Your task to perform on an android device: Show me productivity apps on the Play Store Image 0: 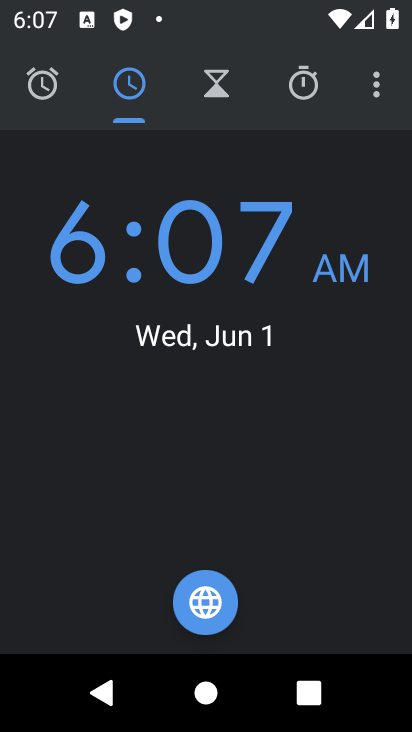
Step 0: press home button
Your task to perform on an android device: Show me productivity apps on the Play Store Image 1: 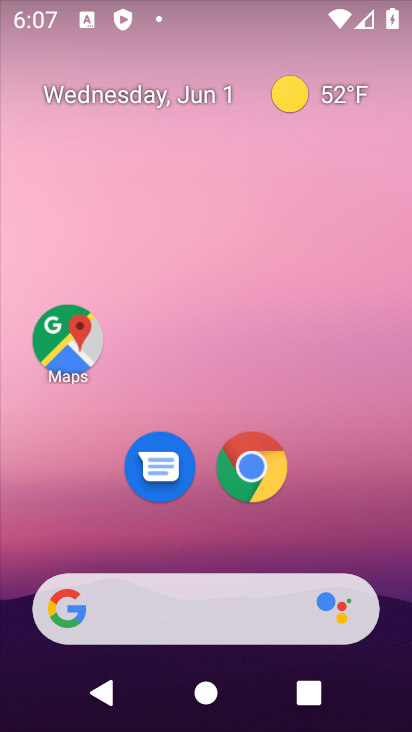
Step 1: drag from (312, 459) to (210, 22)
Your task to perform on an android device: Show me productivity apps on the Play Store Image 2: 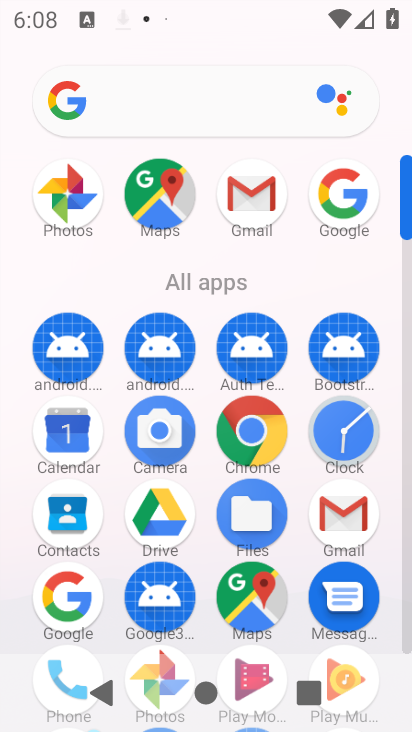
Step 2: drag from (200, 623) to (129, 178)
Your task to perform on an android device: Show me productivity apps on the Play Store Image 3: 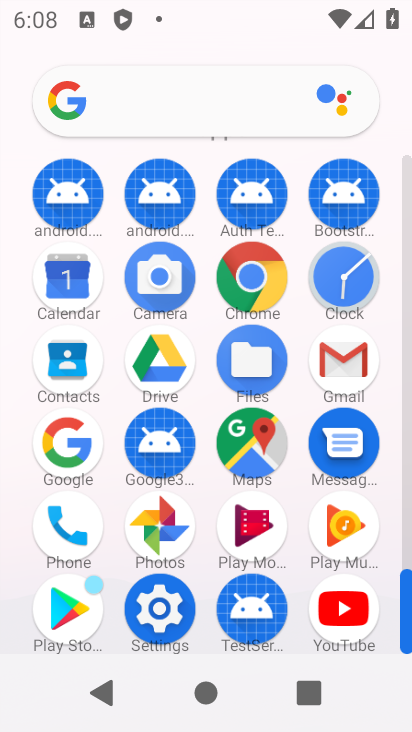
Step 3: click (70, 607)
Your task to perform on an android device: Show me productivity apps on the Play Store Image 4: 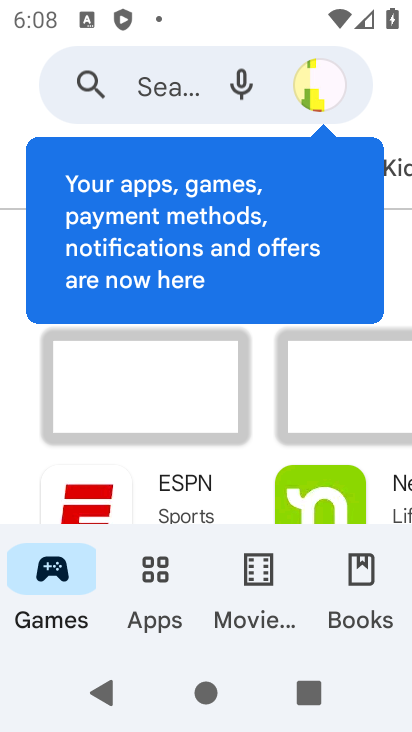
Step 4: click (146, 587)
Your task to perform on an android device: Show me productivity apps on the Play Store Image 5: 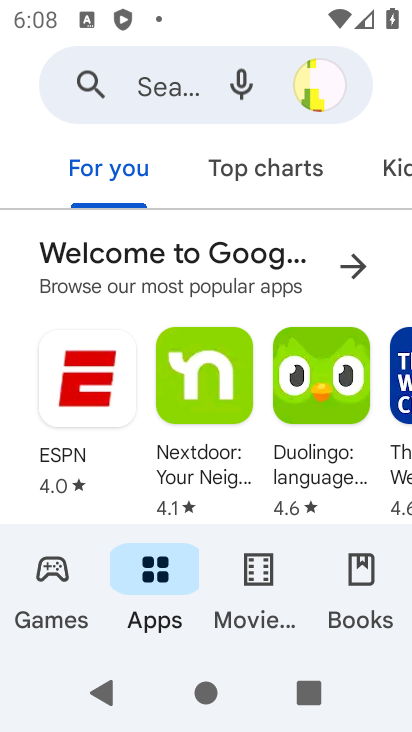
Step 5: click (176, 76)
Your task to perform on an android device: Show me productivity apps on the Play Store Image 6: 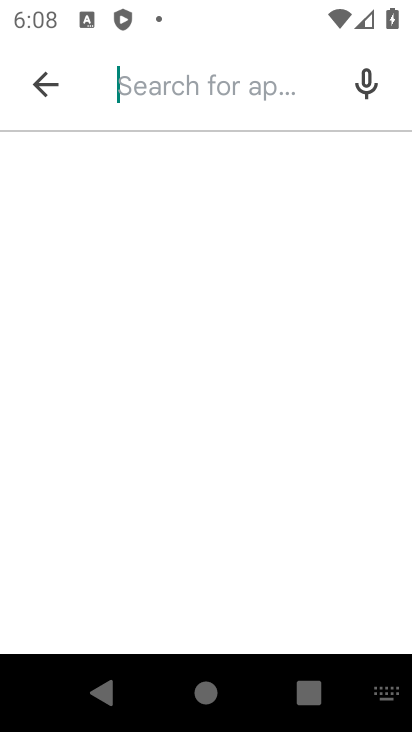
Step 6: type "productvity apps"
Your task to perform on an android device: Show me productivity apps on the Play Store Image 7: 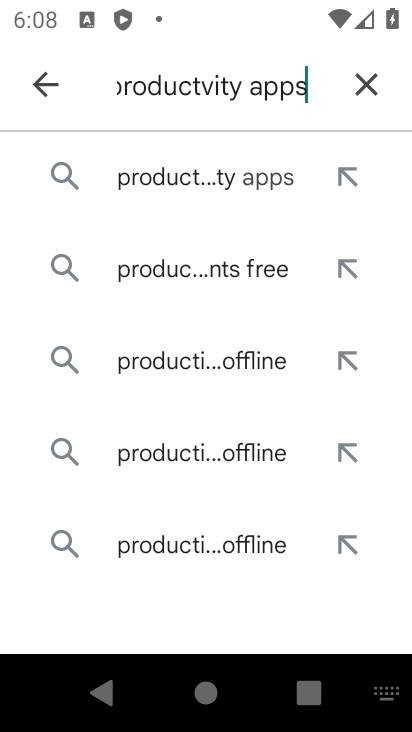
Step 7: click (206, 188)
Your task to perform on an android device: Show me productivity apps on the Play Store Image 8: 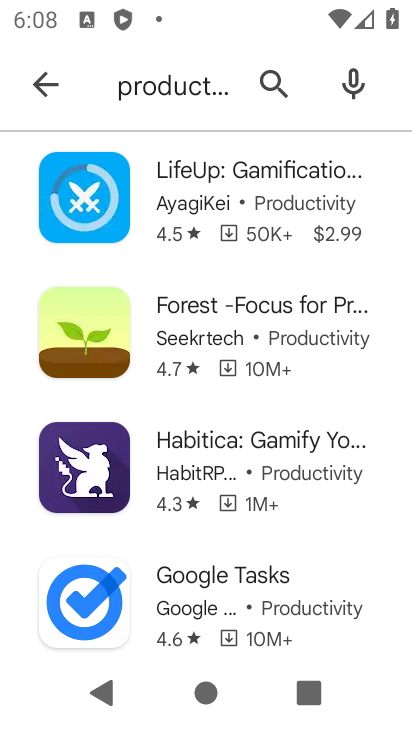
Step 8: task complete